Your task to perform on an android device: toggle location history Image 0: 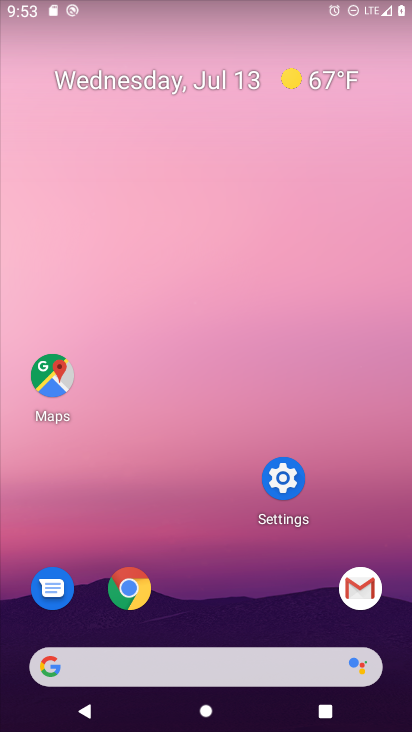
Step 0: click (272, 501)
Your task to perform on an android device: toggle location history Image 1: 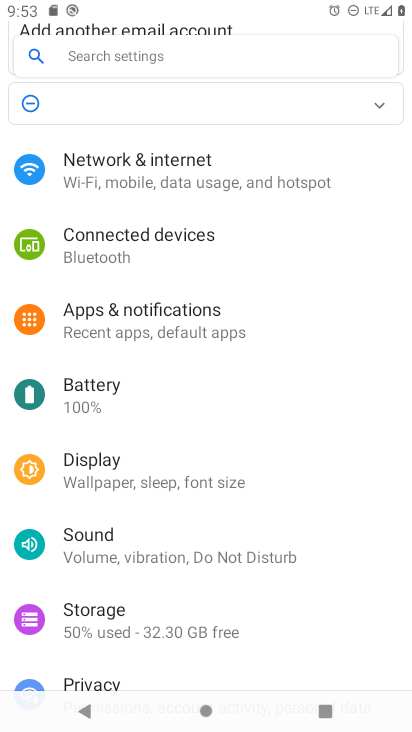
Step 1: drag from (146, 592) to (166, 545)
Your task to perform on an android device: toggle location history Image 2: 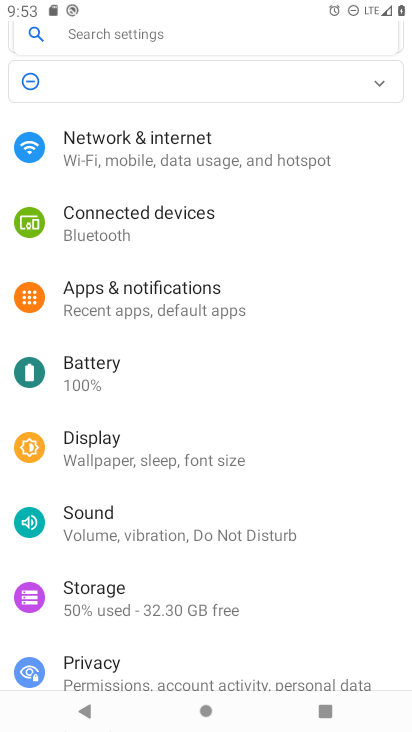
Step 2: drag from (151, 634) to (201, 491)
Your task to perform on an android device: toggle location history Image 3: 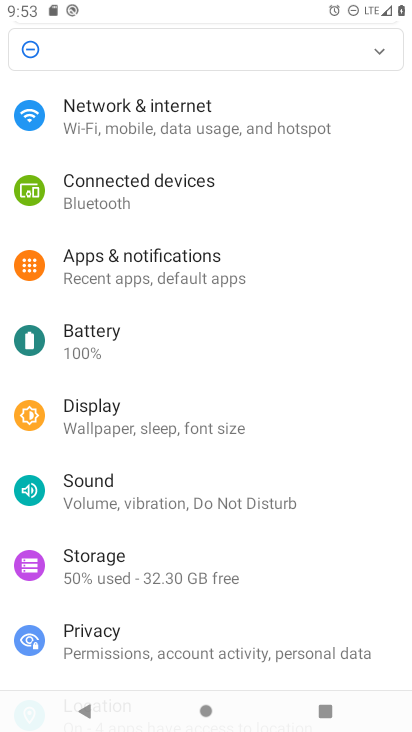
Step 3: drag from (124, 584) to (136, 452)
Your task to perform on an android device: toggle location history Image 4: 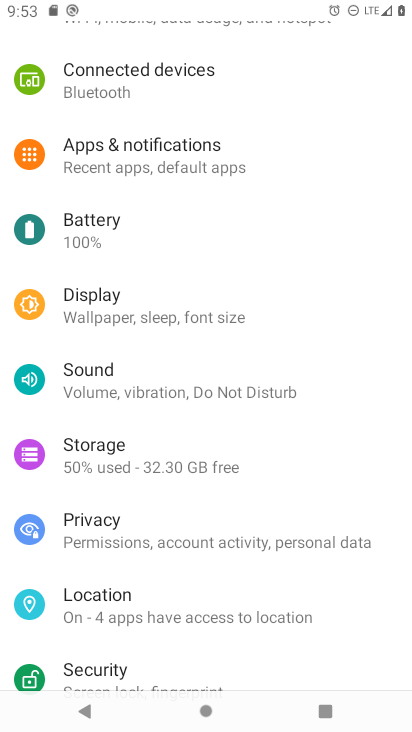
Step 4: click (100, 604)
Your task to perform on an android device: toggle location history Image 5: 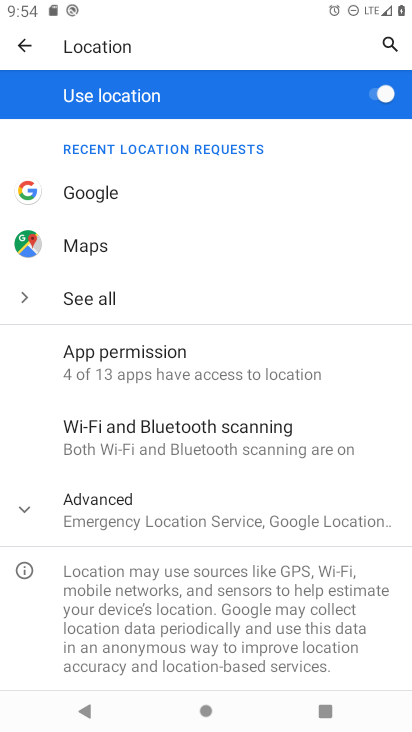
Step 5: click (53, 522)
Your task to perform on an android device: toggle location history Image 6: 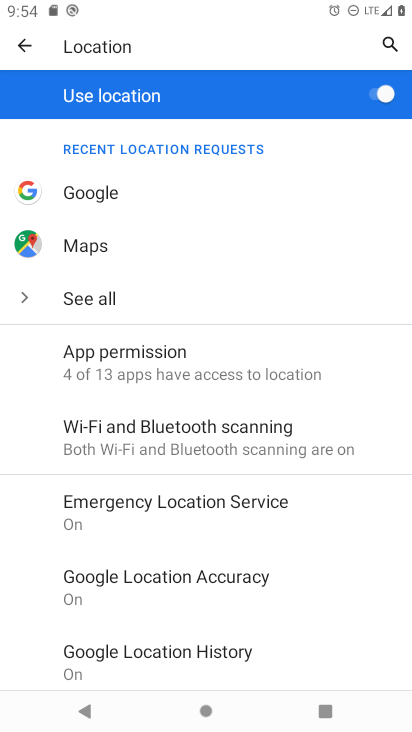
Step 6: click (157, 647)
Your task to perform on an android device: toggle location history Image 7: 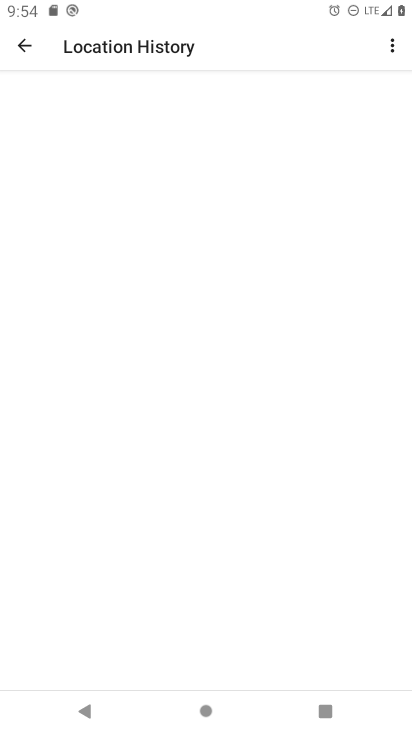
Step 7: task complete